Your task to perform on an android device: toggle translation in the chrome app Image 0: 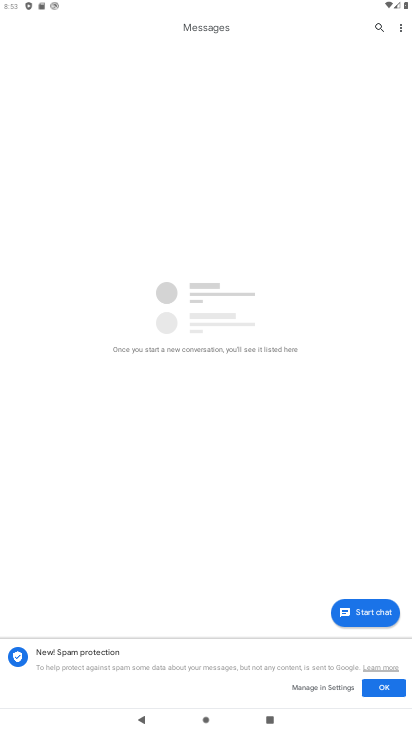
Step 0: press home button
Your task to perform on an android device: toggle translation in the chrome app Image 1: 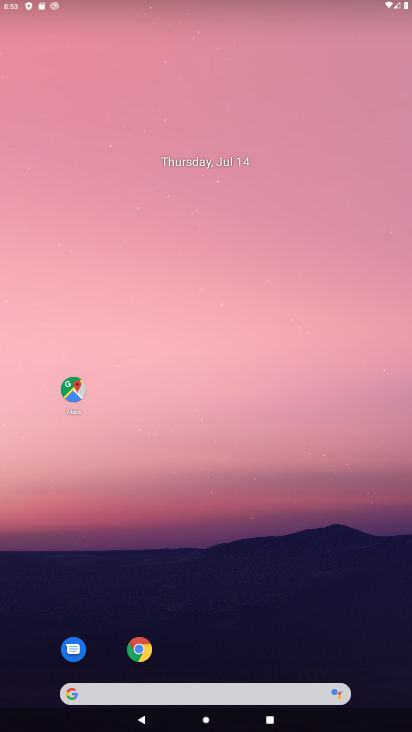
Step 1: click (132, 641)
Your task to perform on an android device: toggle translation in the chrome app Image 2: 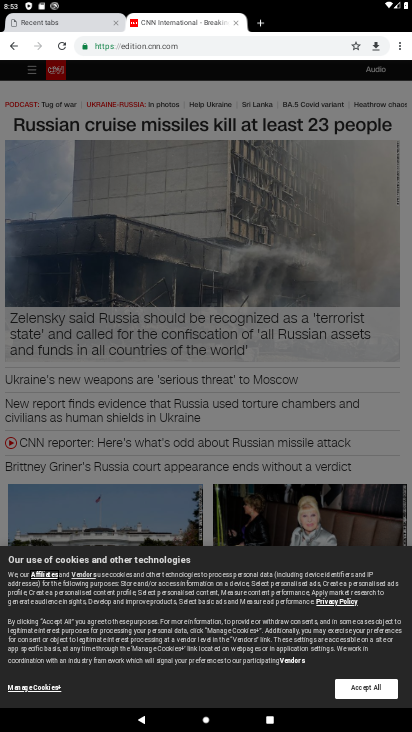
Step 2: click (392, 52)
Your task to perform on an android device: toggle translation in the chrome app Image 3: 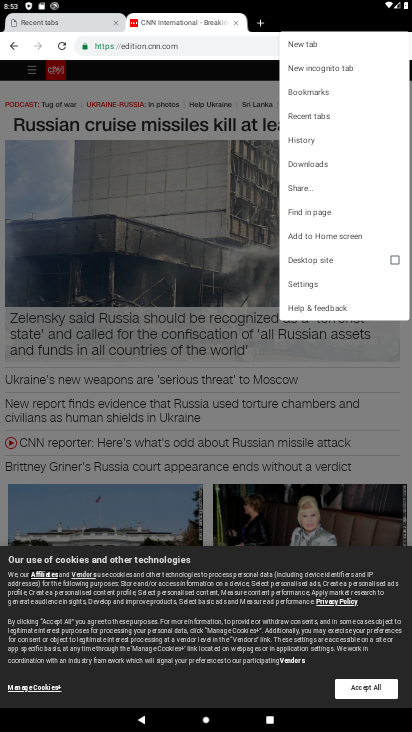
Step 3: click (332, 278)
Your task to perform on an android device: toggle translation in the chrome app Image 4: 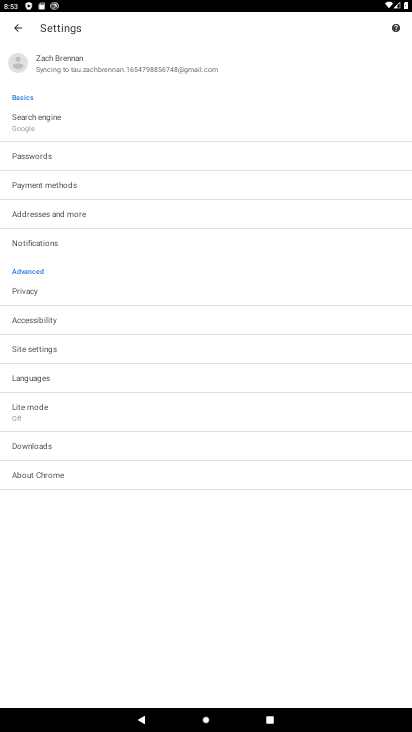
Step 4: click (38, 385)
Your task to perform on an android device: toggle translation in the chrome app Image 5: 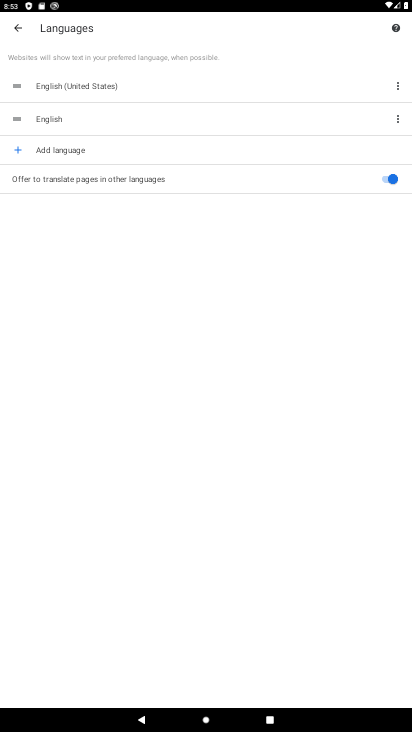
Step 5: click (379, 172)
Your task to perform on an android device: toggle translation in the chrome app Image 6: 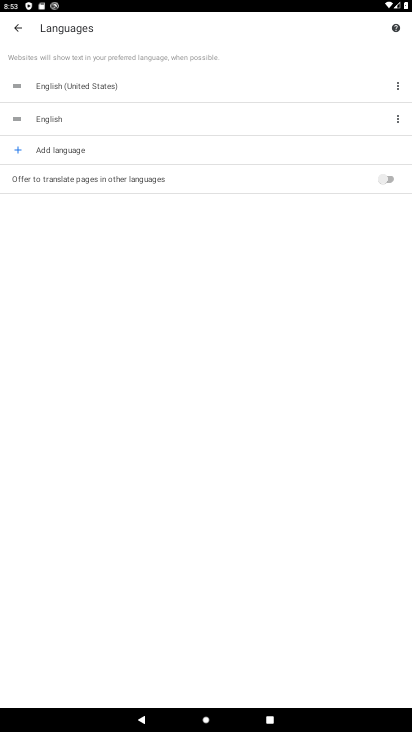
Step 6: task complete